Your task to perform on an android device: turn on notifications settings in the gmail app Image 0: 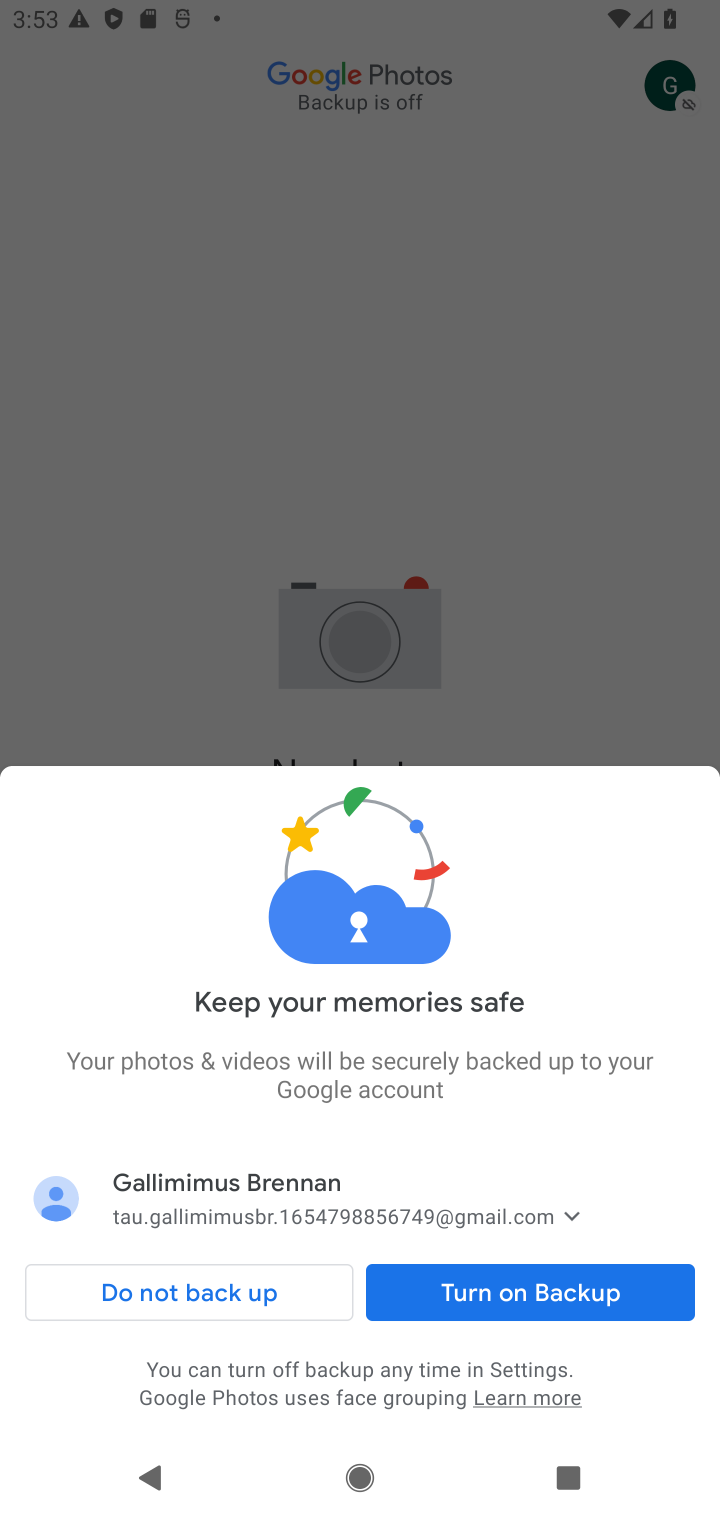
Step 0: press home button
Your task to perform on an android device: turn on notifications settings in the gmail app Image 1: 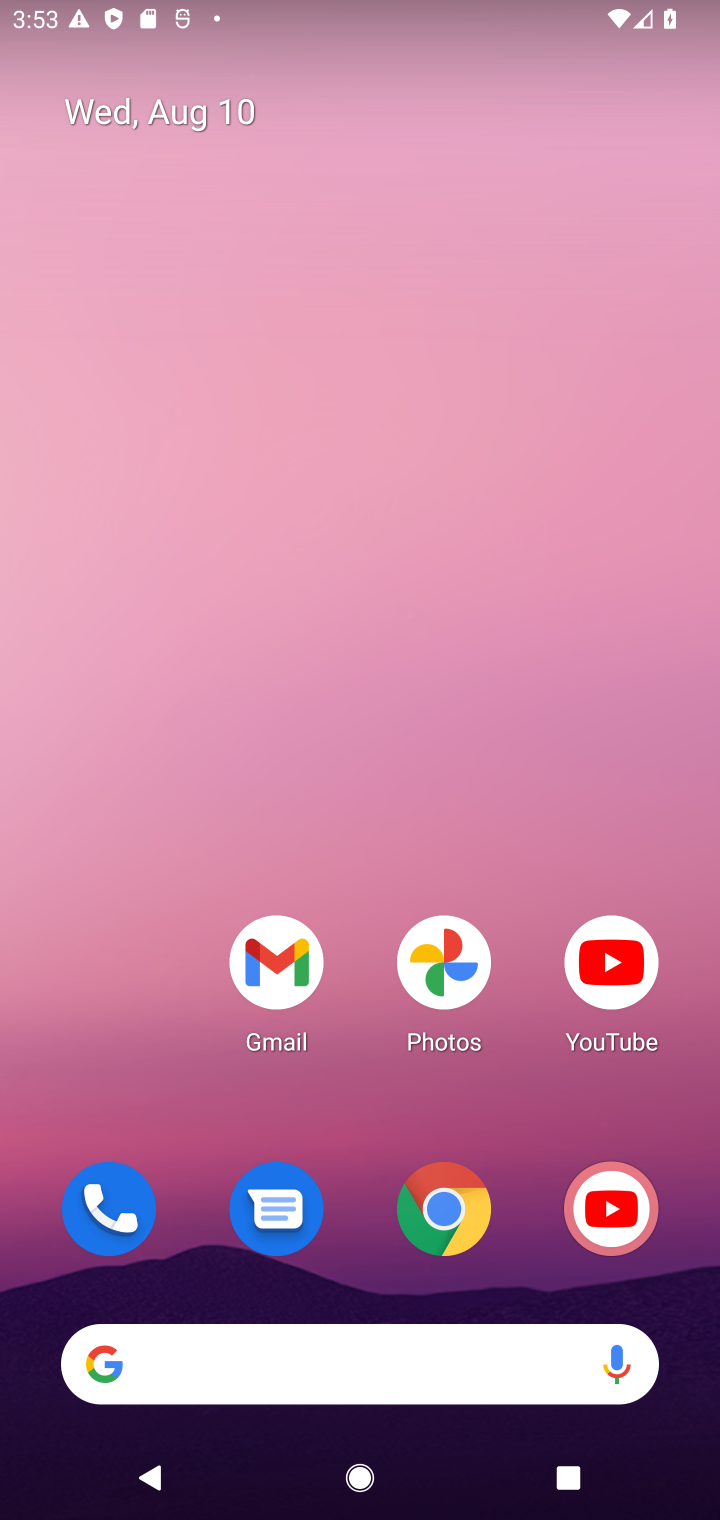
Step 1: click (289, 968)
Your task to perform on an android device: turn on notifications settings in the gmail app Image 2: 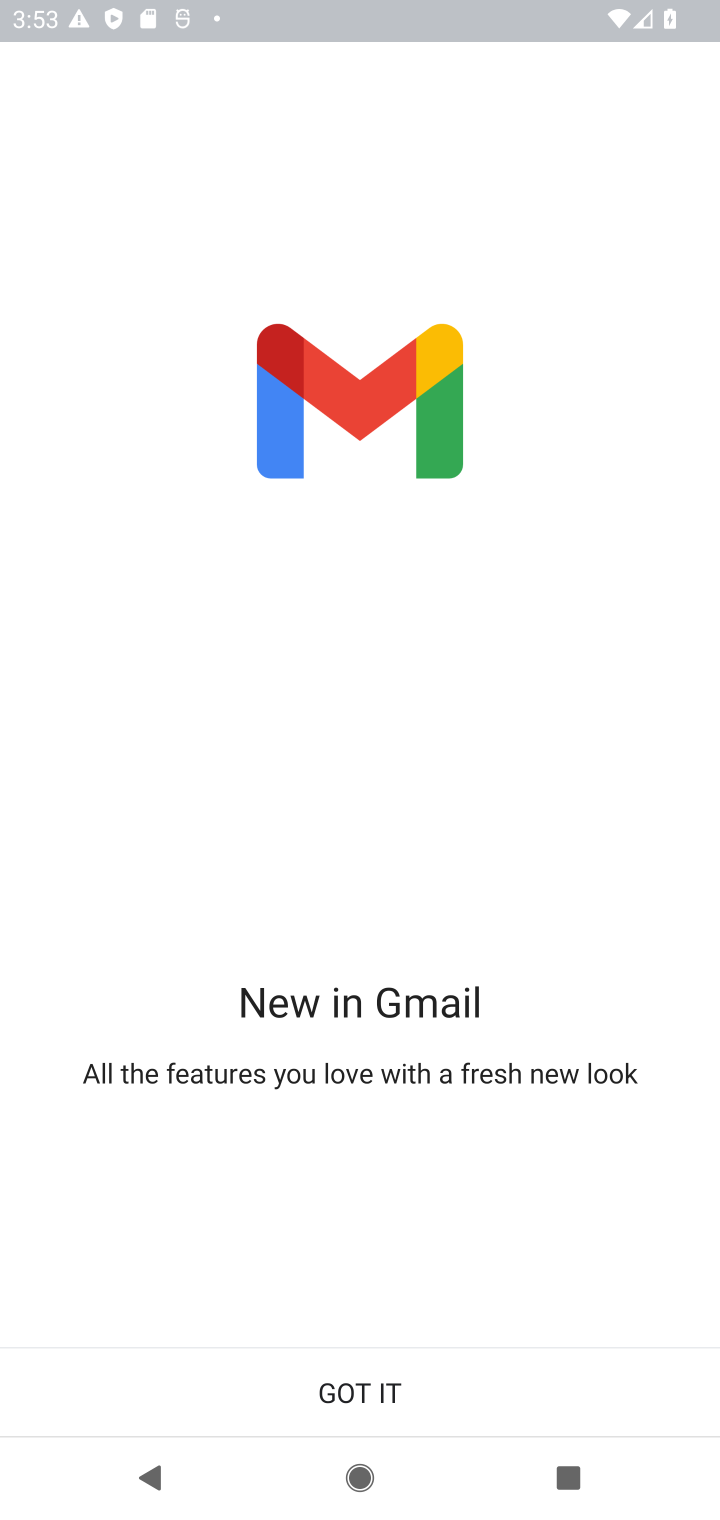
Step 2: click (392, 1410)
Your task to perform on an android device: turn on notifications settings in the gmail app Image 3: 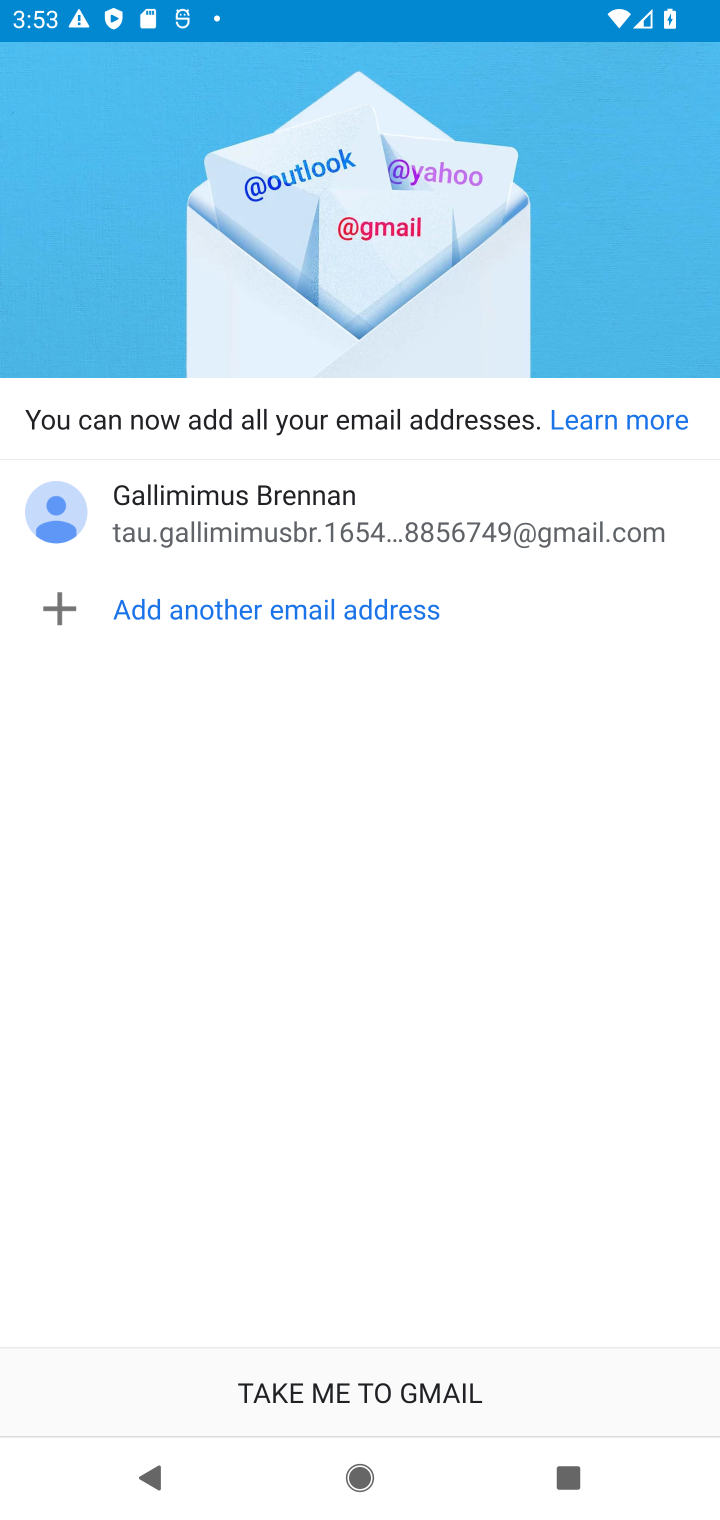
Step 3: click (392, 1410)
Your task to perform on an android device: turn on notifications settings in the gmail app Image 4: 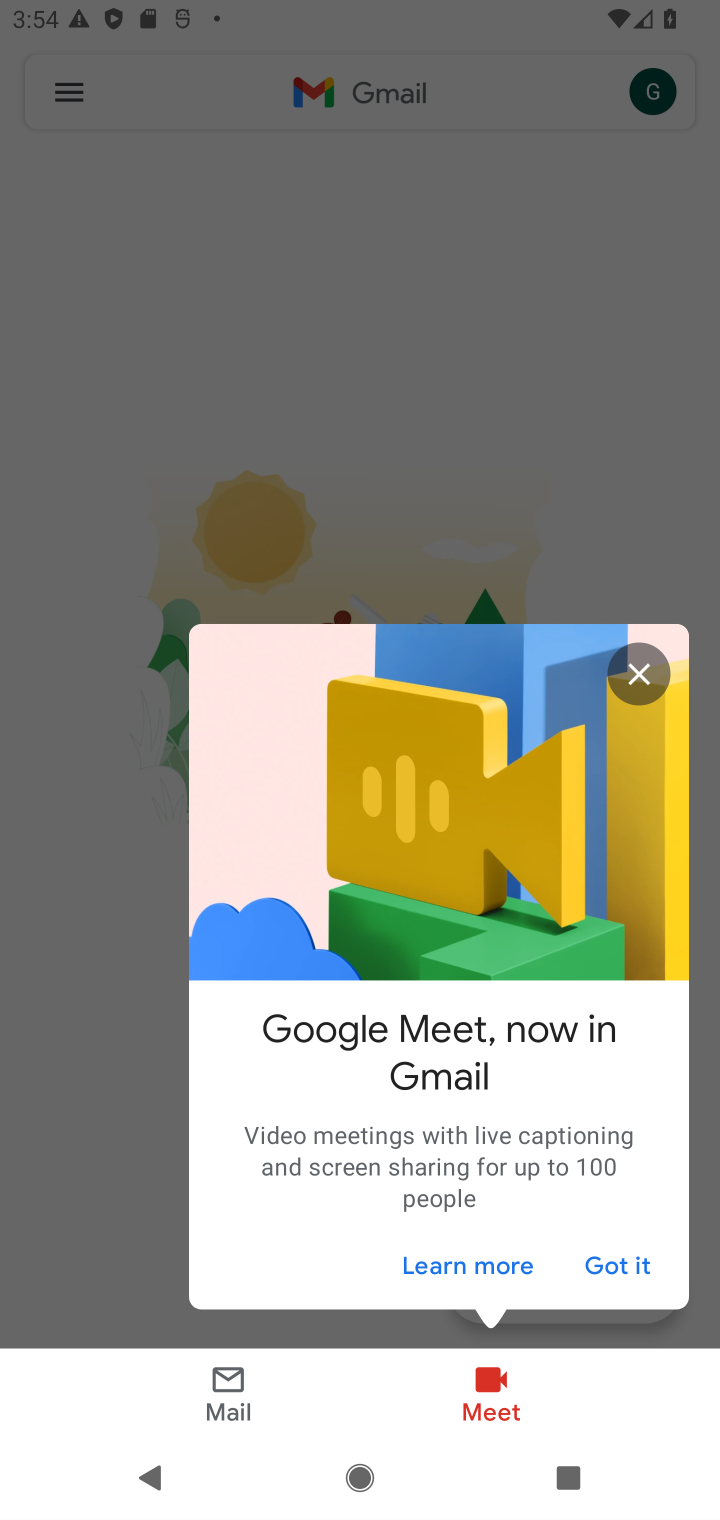
Step 4: click (615, 1253)
Your task to perform on an android device: turn on notifications settings in the gmail app Image 5: 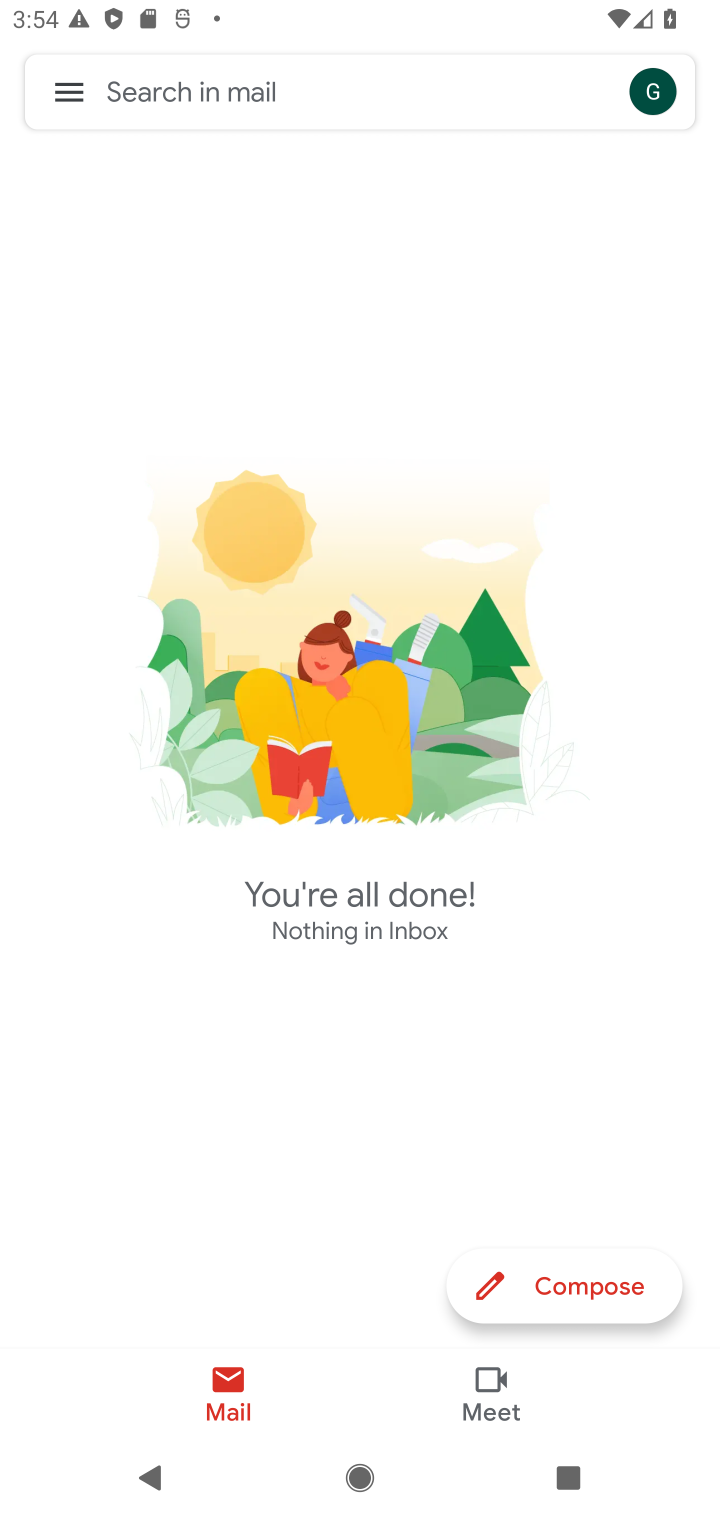
Step 5: click (77, 88)
Your task to perform on an android device: turn on notifications settings in the gmail app Image 6: 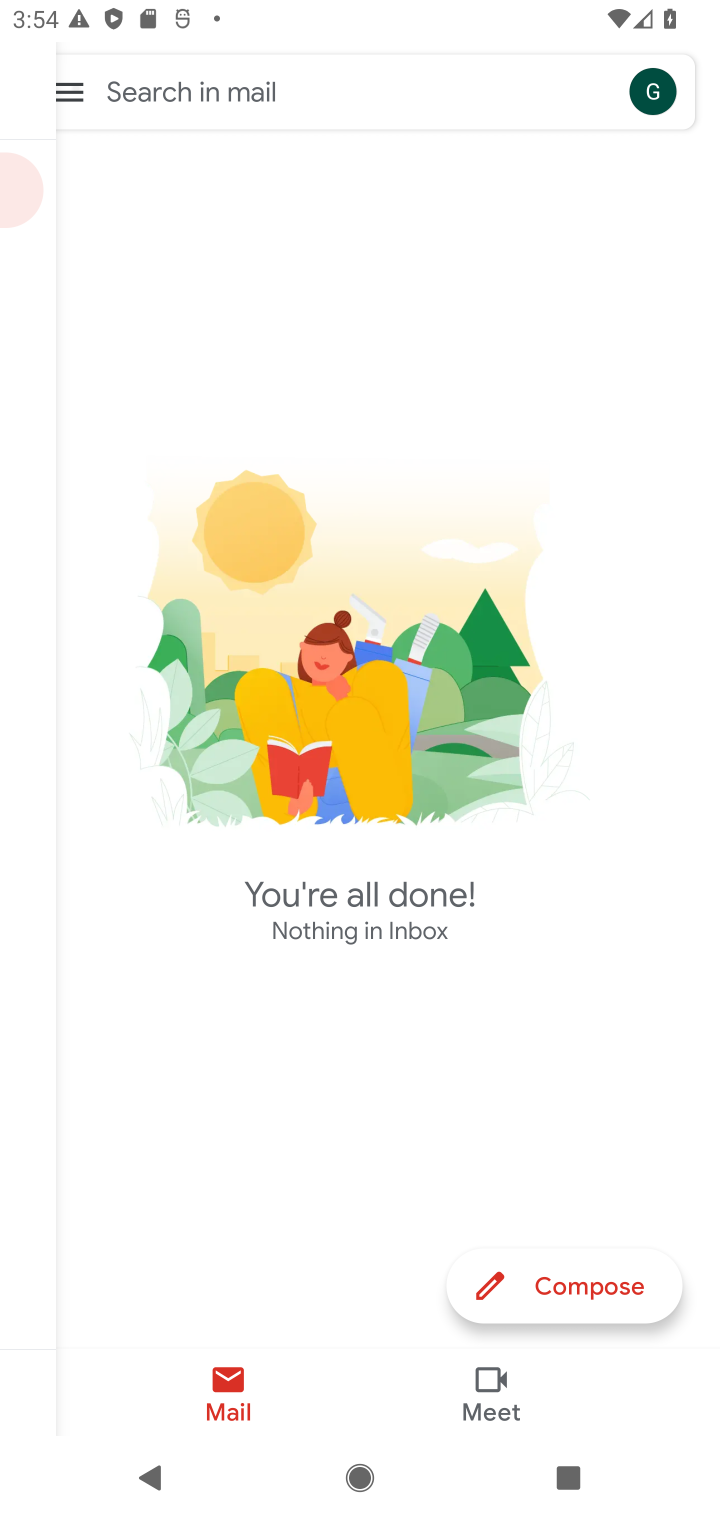
Step 6: click (77, 88)
Your task to perform on an android device: turn on notifications settings in the gmail app Image 7: 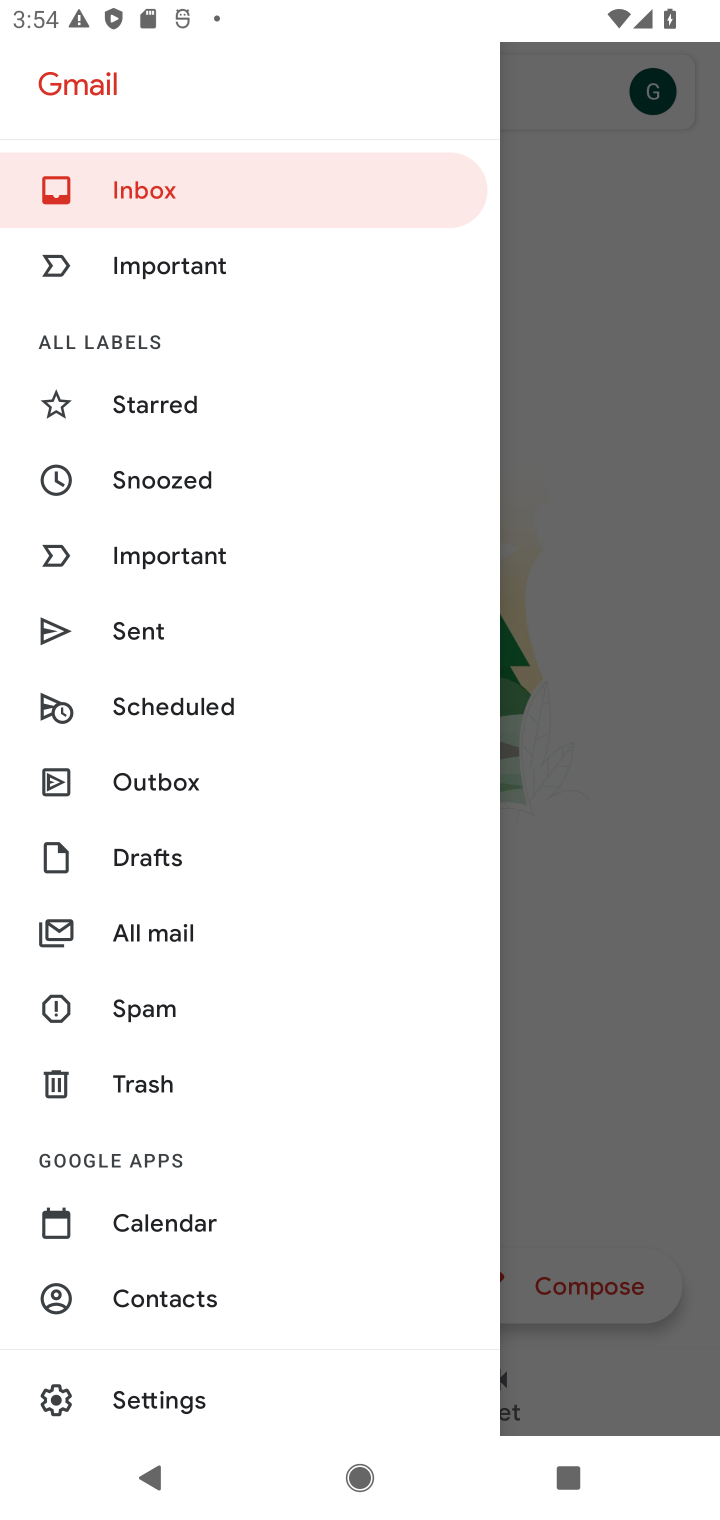
Step 7: click (217, 1414)
Your task to perform on an android device: turn on notifications settings in the gmail app Image 8: 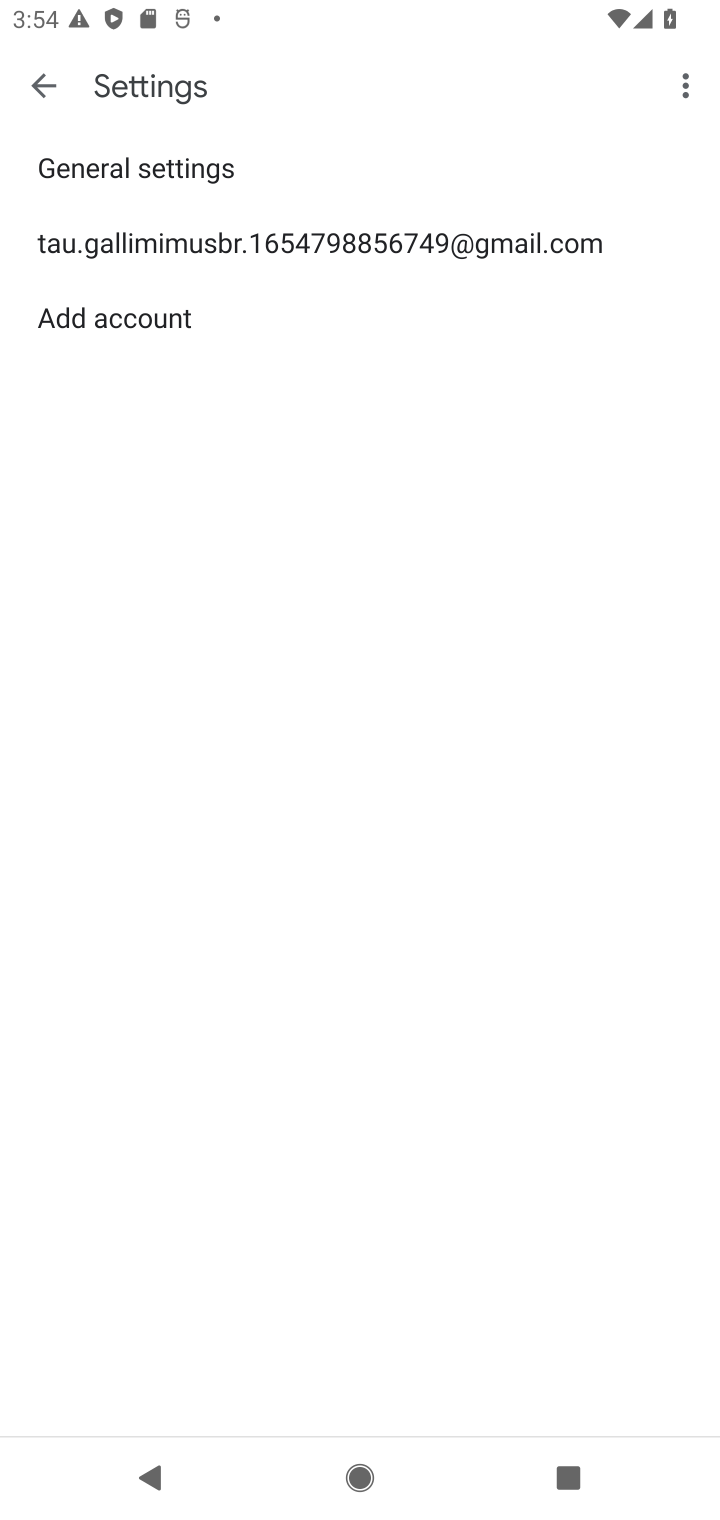
Step 8: click (474, 241)
Your task to perform on an android device: turn on notifications settings in the gmail app Image 9: 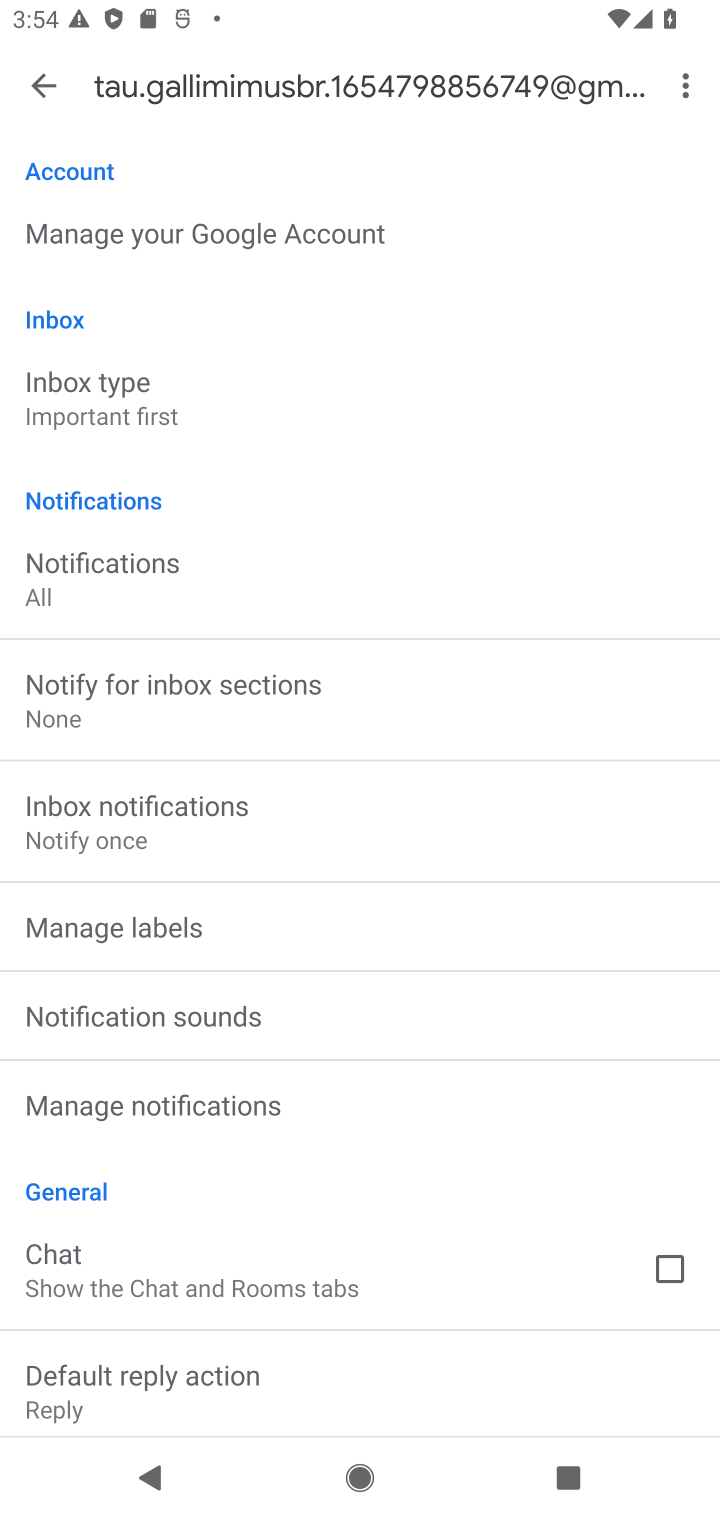
Step 9: click (215, 577)
Your task to perform on an android device: turn on notifications settings in the gmail app Image 10: 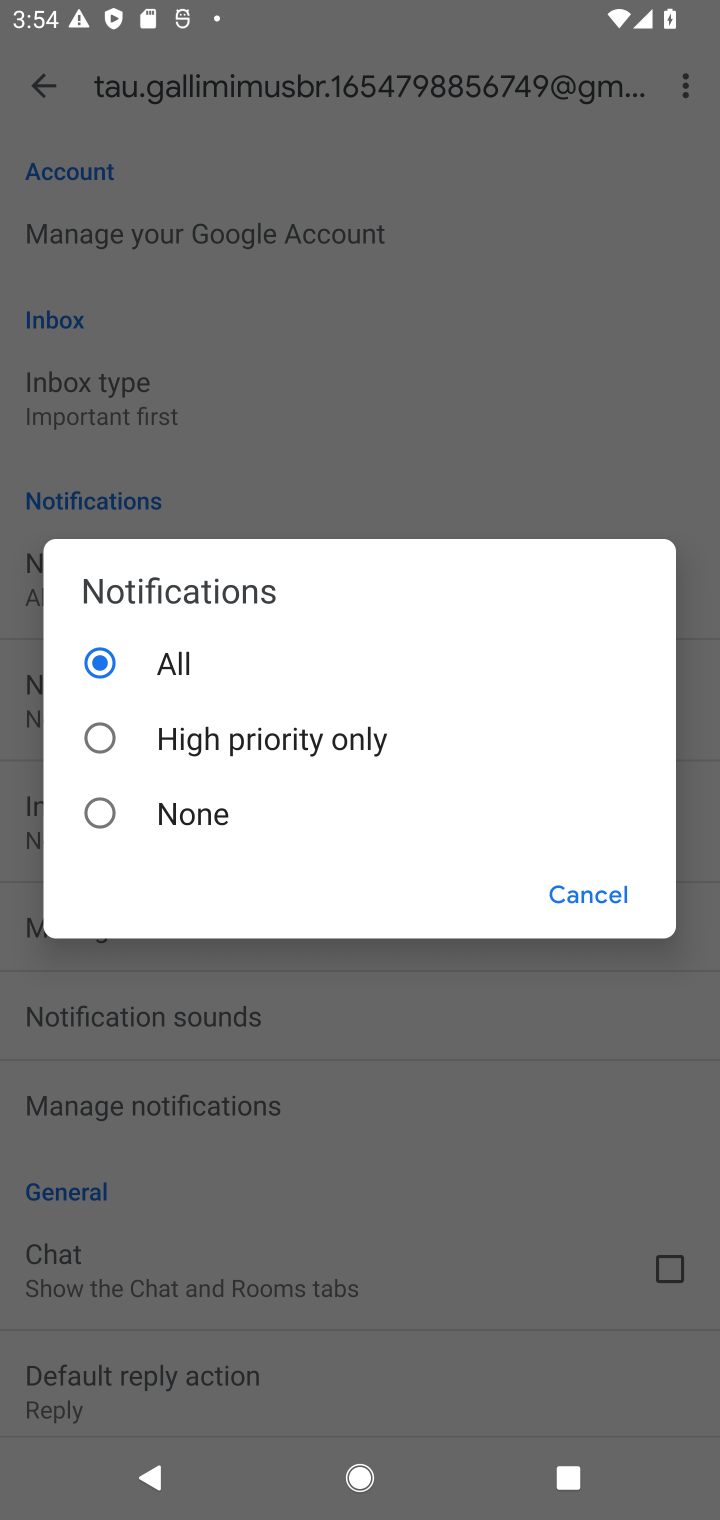
Step 10: task complete